Your task to perform on an android device: toggle location history Image 0: 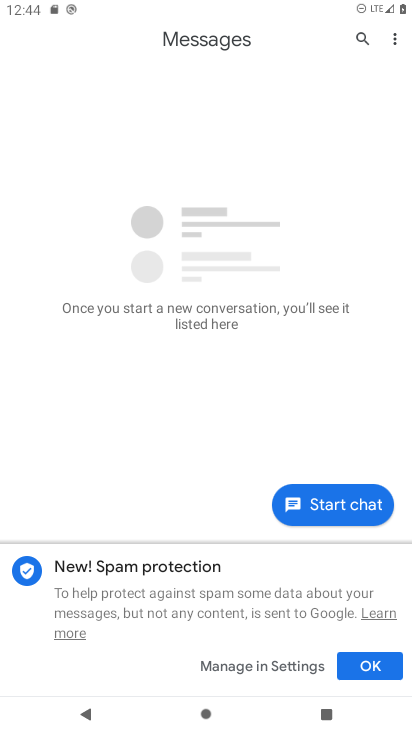
Step 0: press home button
Your task to perform on an android device: toggle location history Image 1: 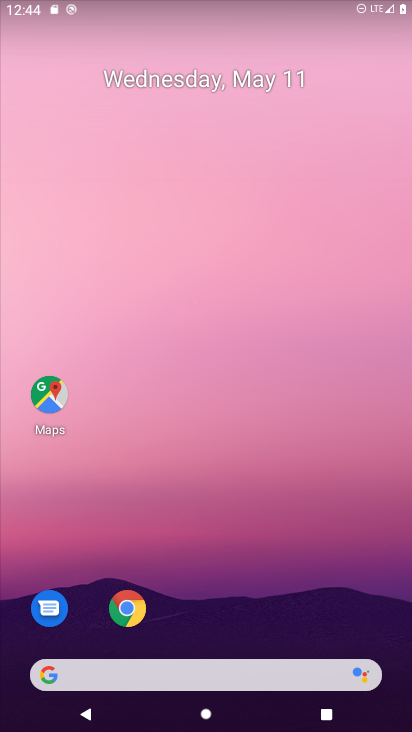
Step 1: drag from (257, 559) to (212, 65)
Your task to perform on an android device: toggle location history Image 2: 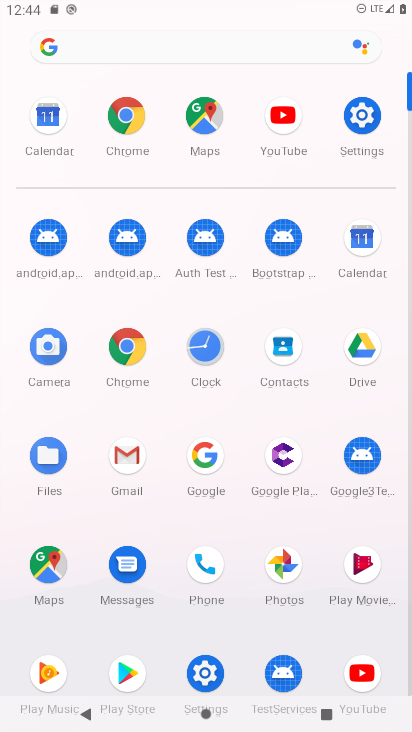
Step 2: click (356, 103)
Your task to perform on an android device: toggle location history Image 3: 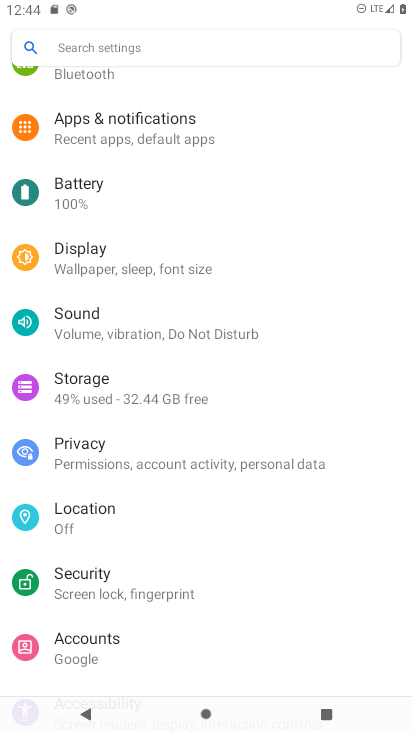
Step 3: click (135, 521)
Your task to perform on an android device: toggle location history Image 4: 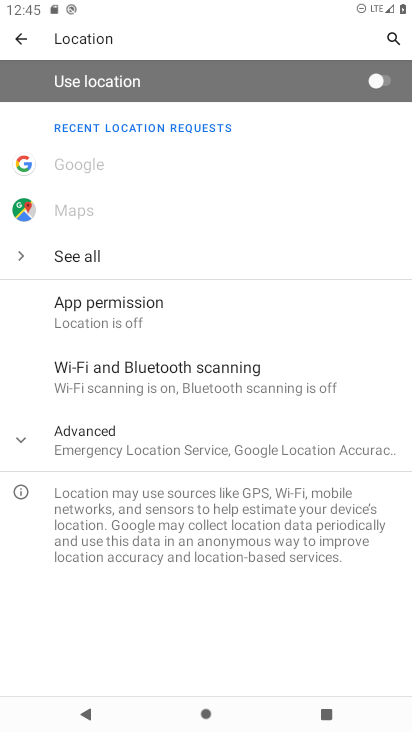
Step 4: click (21, 437)
Your task to perform on an android device: toggle location history Image 5: 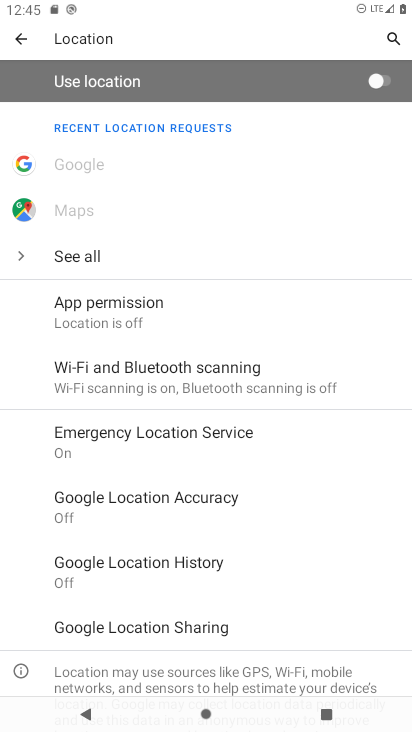
Step 5: click (183, 567)
Your task to perform on an android device: toggle location history Image 6: 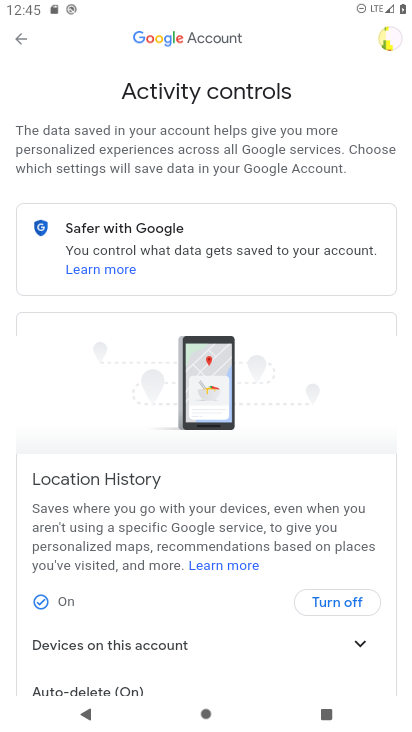
Step 6: click (353, 597)
Your task to perform on an android device: toggle location history Image 7: 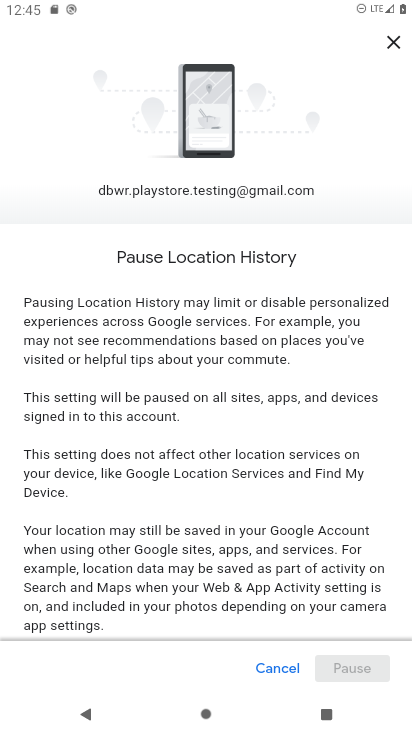
Step 7: drag from (367, 583) to (355, 341)
Your task to perform on an android device: toggle location history Image 8: 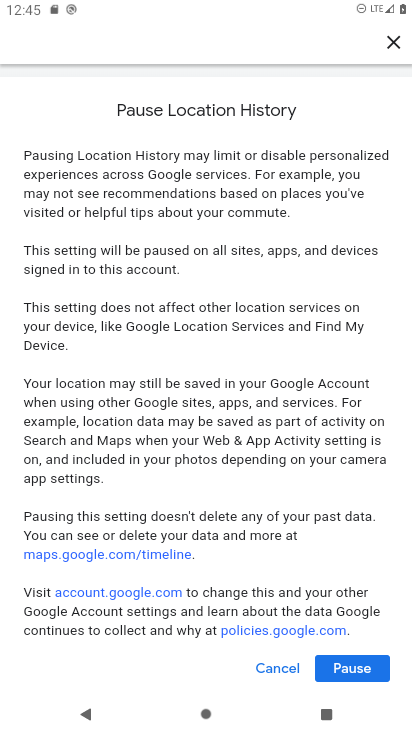
Step 8: click (380, 669)
Your task to perform on an android device: toggle location history Image 9: 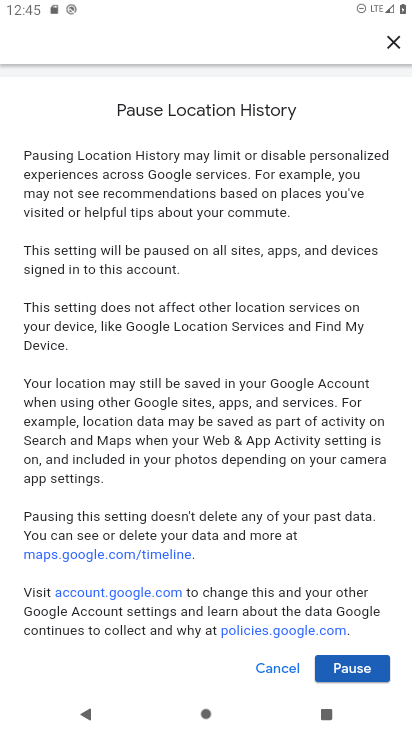
Step 9: click (380, 667)
Your task to perform on an android device: toggle location history Image 10: 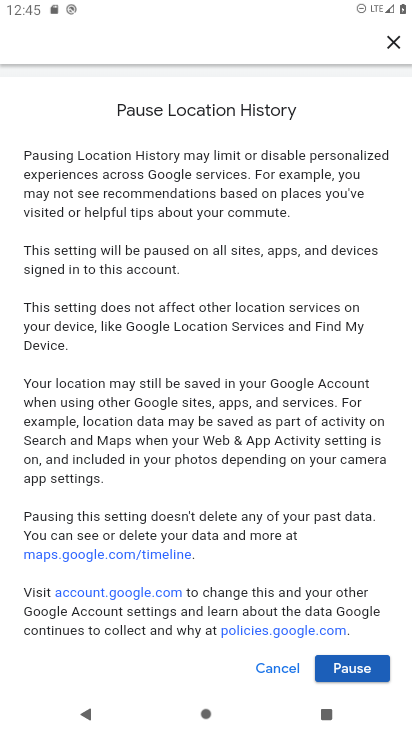
Step 10: click (352, 669)
Your task to perform on an android device: toggle location history Image 11: 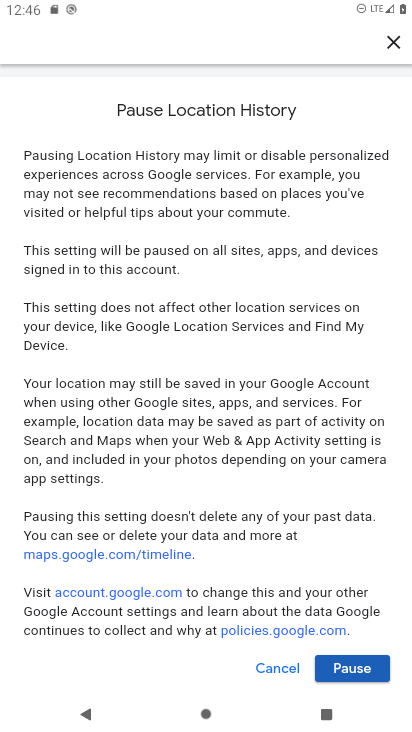
Step 11: click (355, 669)
Your task to perform on an android device: toggle location history Image 12: 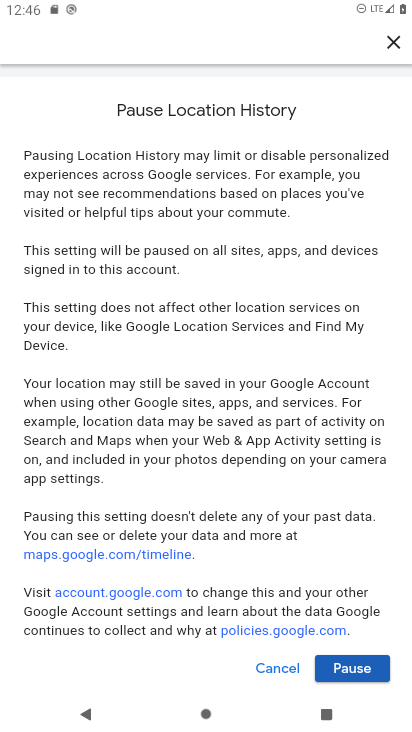
Step 12: drag from (286, 526) to (321, 307)
Your task to perform on an android device: toggle location history Image 13: 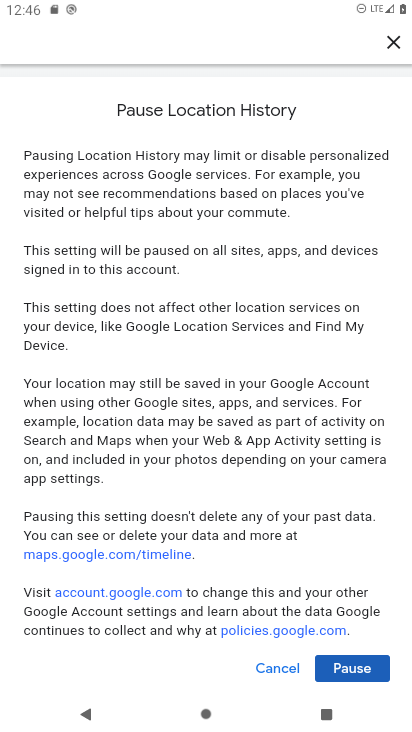
Step 13: click (353, 667)
Your task to perform on an android device: toggle location history Image 14: 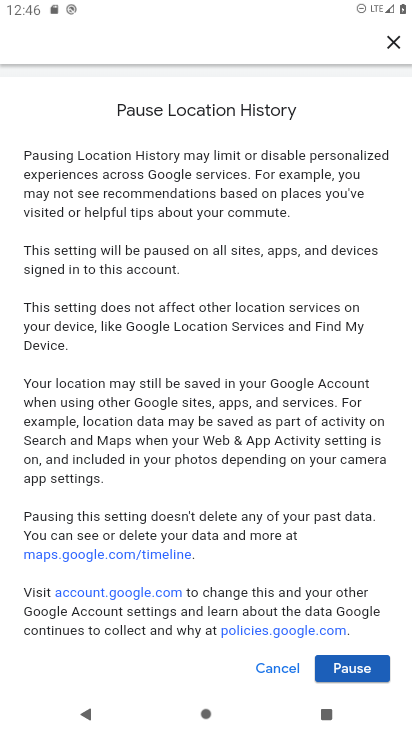
Step 14: click (356, 668)
Your task to perform on an android device: toggle location history Image 15: 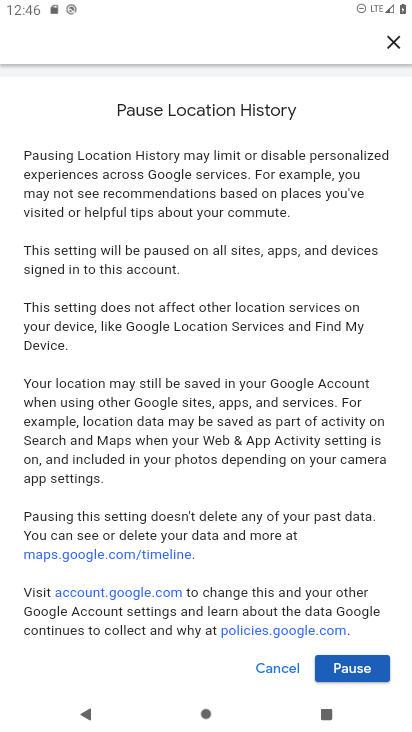
Step 15: click (356, 668)
Your task to perform on an android device: toggle location history Image 16: 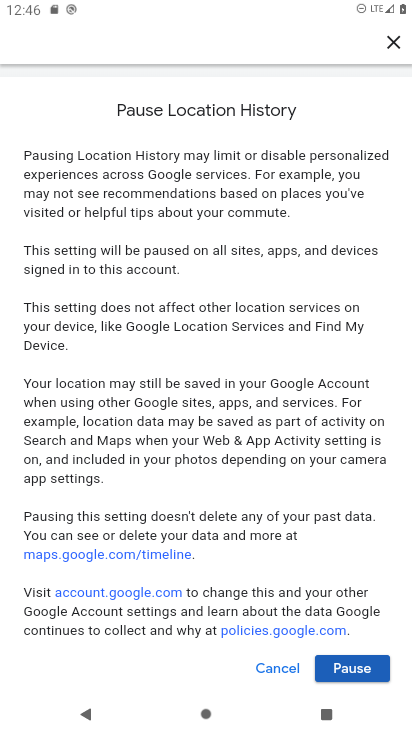
Step 16: click (367, 666)
Your task to perform on an android device: toggle location history Image 17: 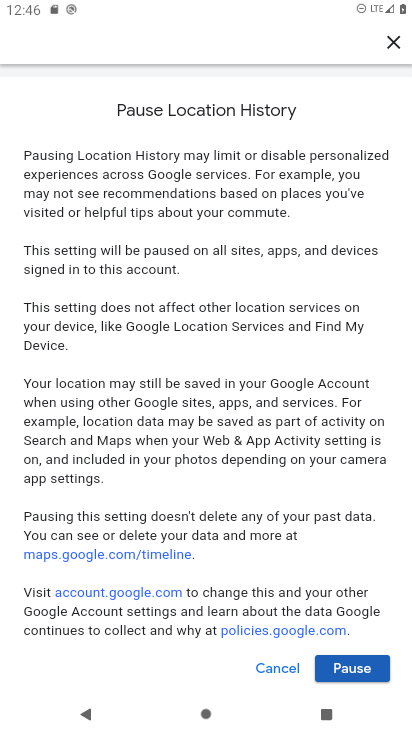
Step 17: task complete